Your task to perform on an android device: turn off priority inbox in the gmail app Image 0: 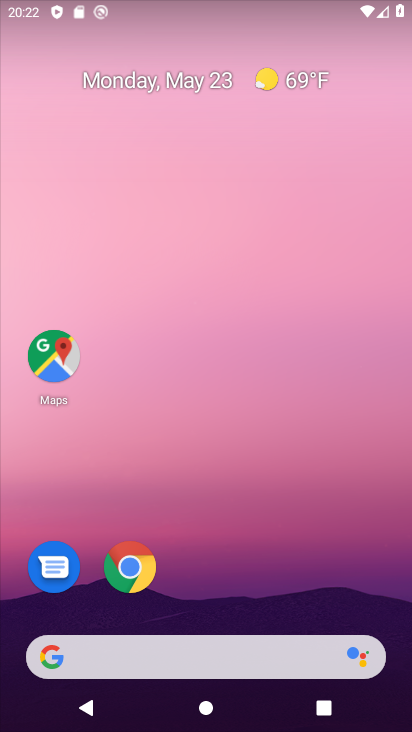
Step 0: drag from (225, 578) to (273, 90)
Your task to perform on an android device: turn off priority inbox in the gmail app Image 1: 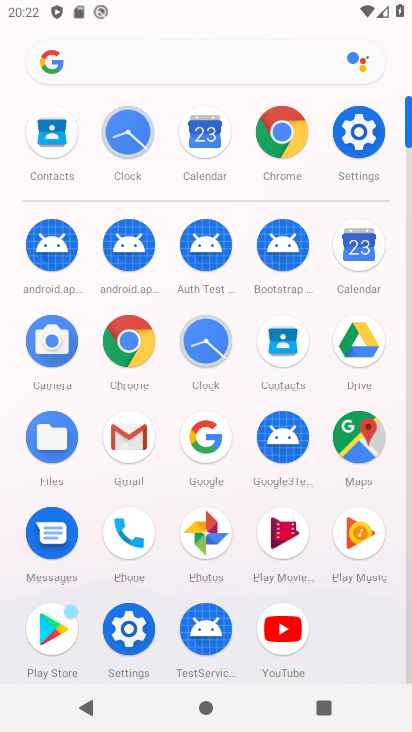
Step 1: click (137, 441)
Your task to perform on an android device: turn off priority inbox in the gmail app Image 2: 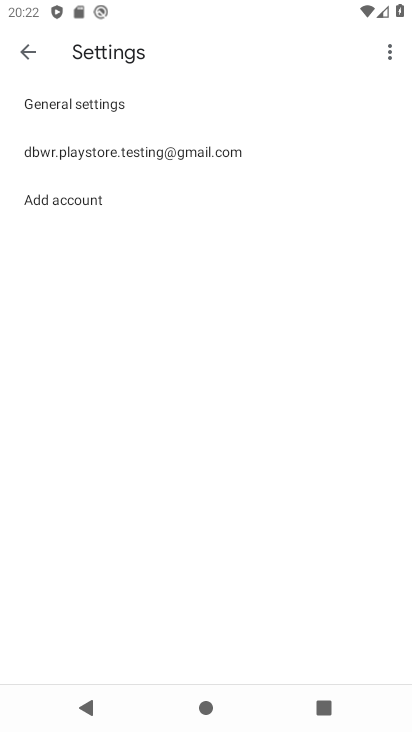
Step 2: click (114, 151)
Your task to perform on an android device: turn off priority inbox in the gmail app Image 3: 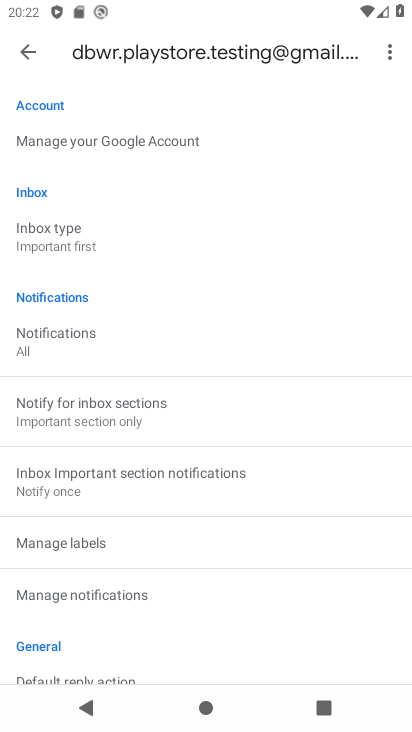
Step 3: click (27, 45)
Your task to perform on an android device: turn off priority inbox in the gmail app Image 4: 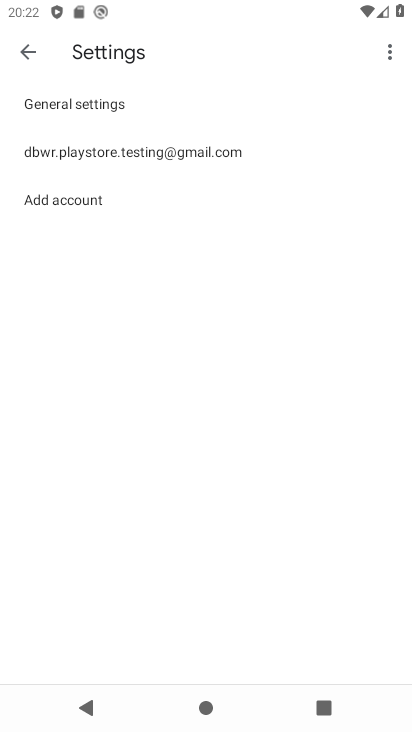
Step 4: click (105, 152)
Your task to perform on an android device: turn off priority inbox in the gmail app Image 5: 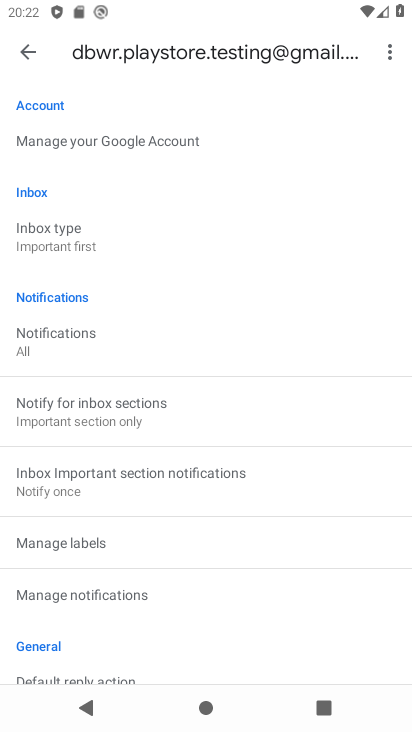
Step 5: task complete